Your task to perform on an android device: turn pop-ups on in chrome Image 0: 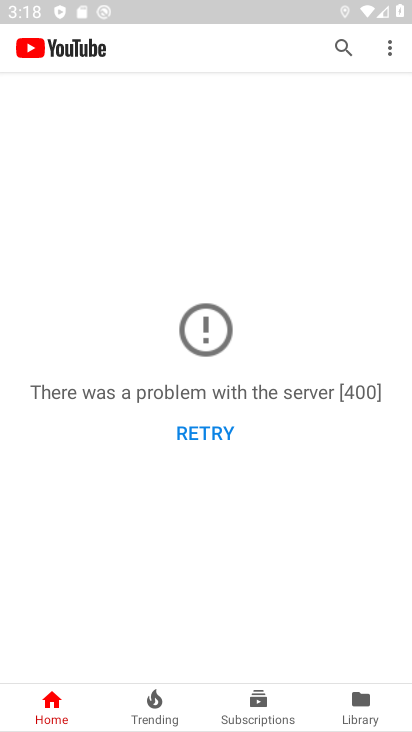
Step 0: press home button
Your task to perform on an android device: turn pop-ups on in chrome Image 1: 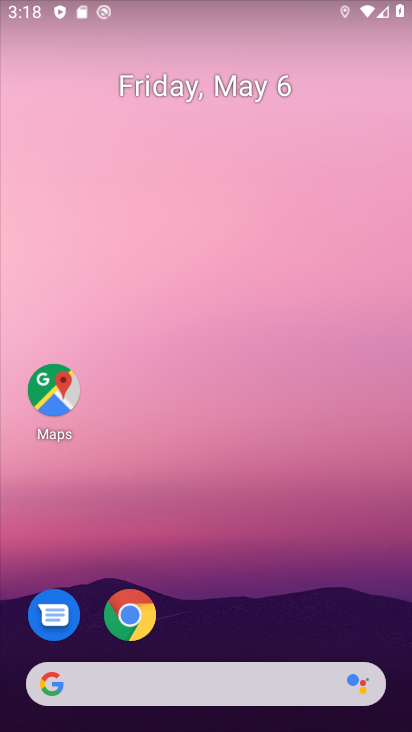
Step 1: click (125, 609)
Your task to perform on an android device: turn pop-ups on in chrome Image 2: 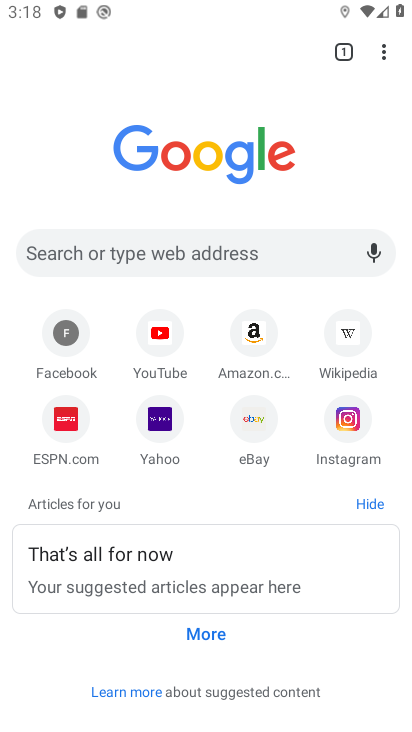
Step 2: drag from (382, 51) to (214, 430)
Your task to perform on an android device: turn pop-ups on in chrome Image 3: 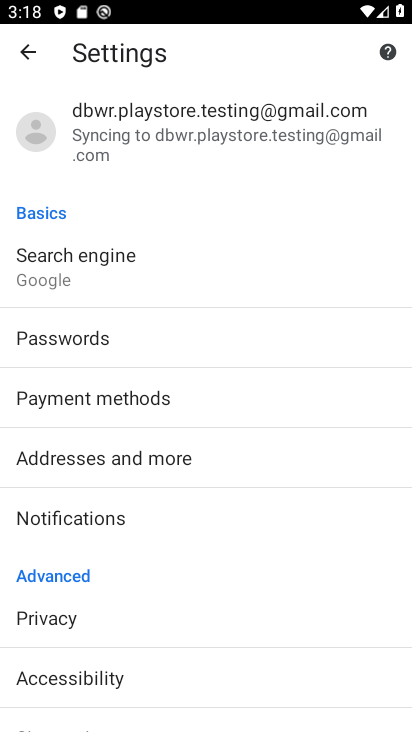
Step 3: drag from (269, 611) to (291, 233)
Your task to perform on an android device: turn pop-ups on in chrome Image 4: 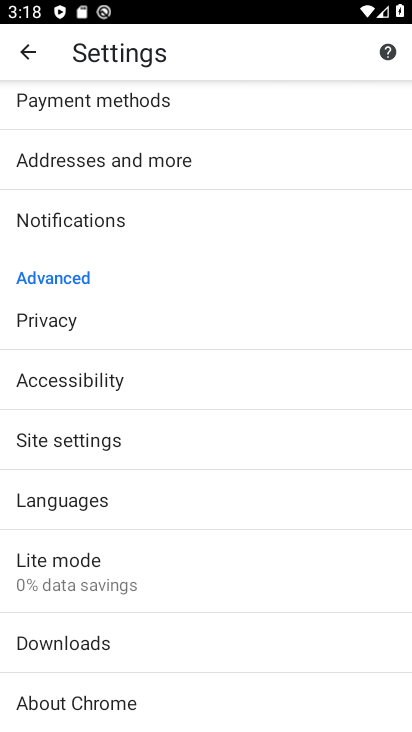
Step 4: click (88, 439)
Your task to perform on an android device: turn pop-ups on in chrome Image 5: 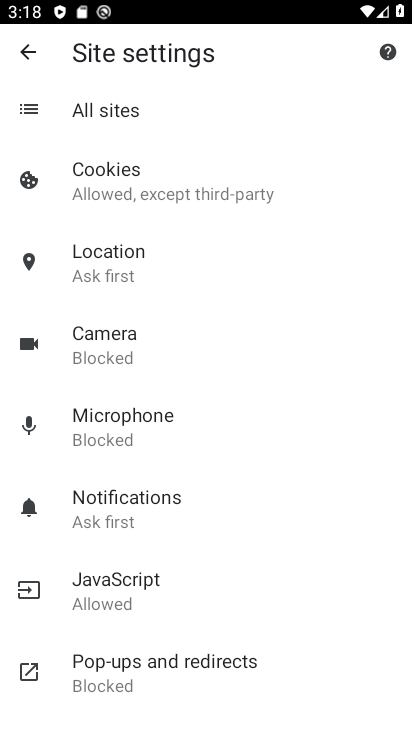
Step 5: drag from (243, 591) to (271, 340)
Your task to perform on an android device: turn pop-ups on in chrome Image 6: 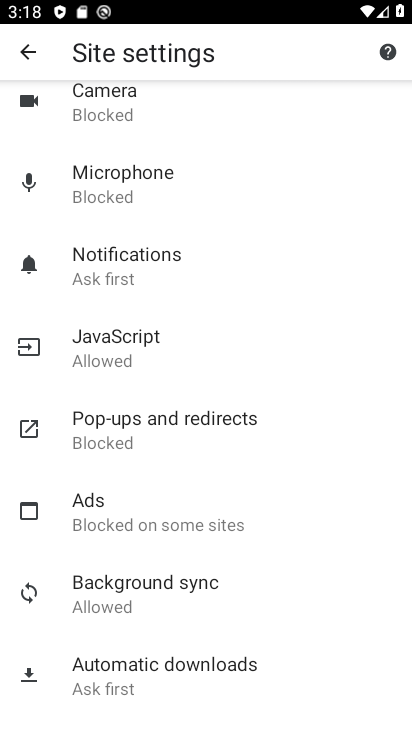
Step 6: click (169, 414)
Your task to perform on an android device: turn pop-ups on in chrome Image 7: 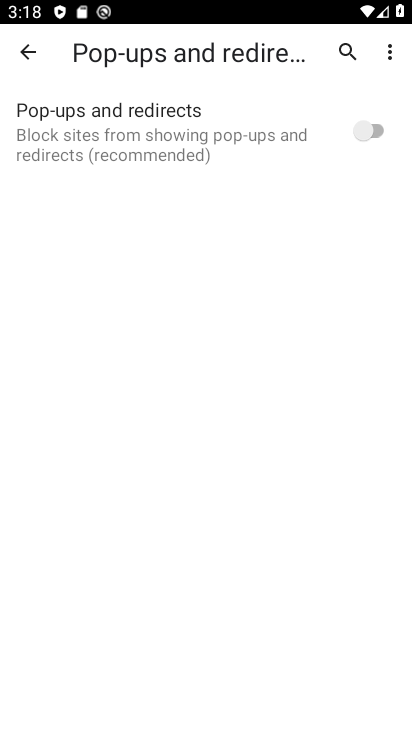
Step 7: click (375, 122)
Your task to perform on an android device: turn pop-ups on in chrome Image 8: 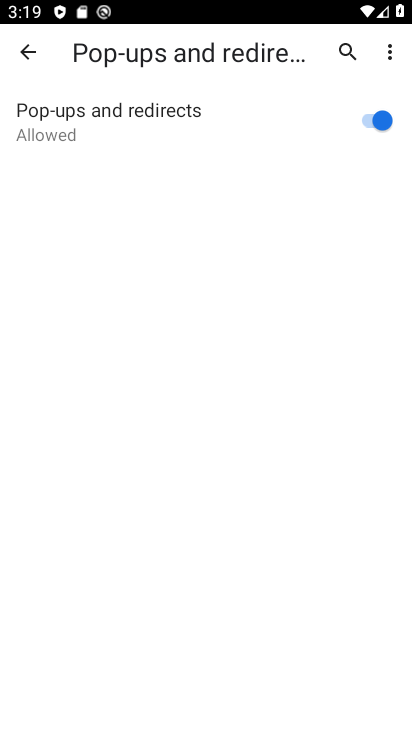
Step 8: task complete